Your task to perform on an android device: Open notification settings Image 0: 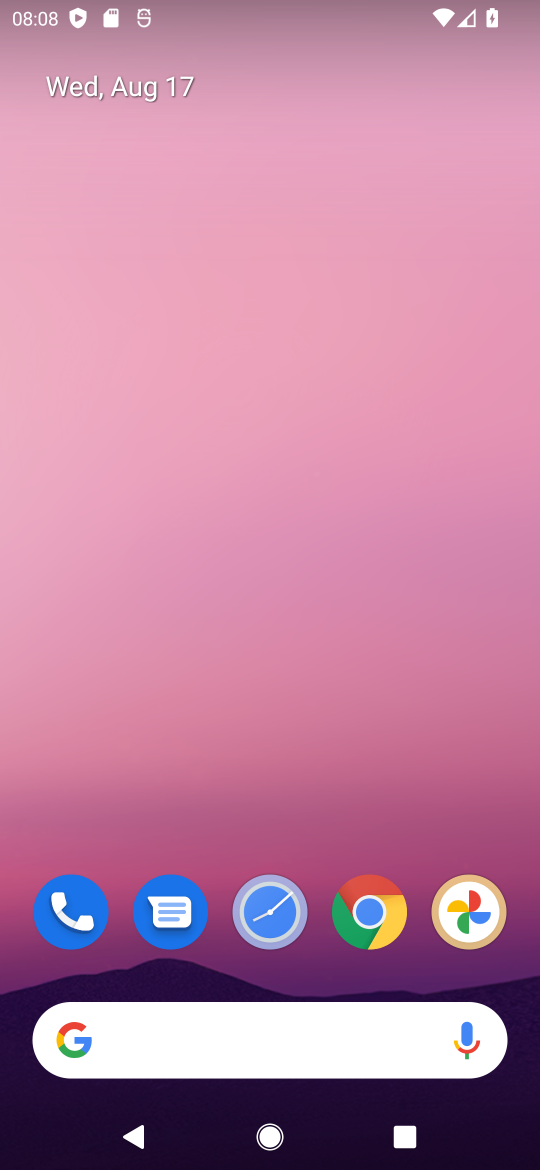
Step 0: drag from (256, 691) to (239, 276)
Your task to perform on an android device: Open notification settings Image 1: 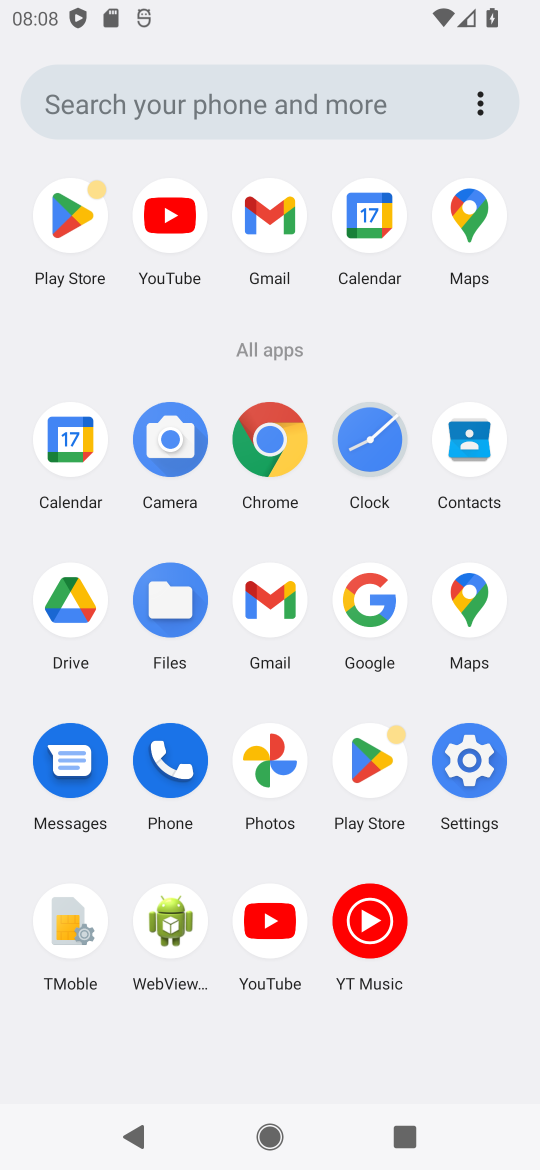
Step 1: click (465, 776)
Your task to perform on an android device: Open notification settings Image 2: 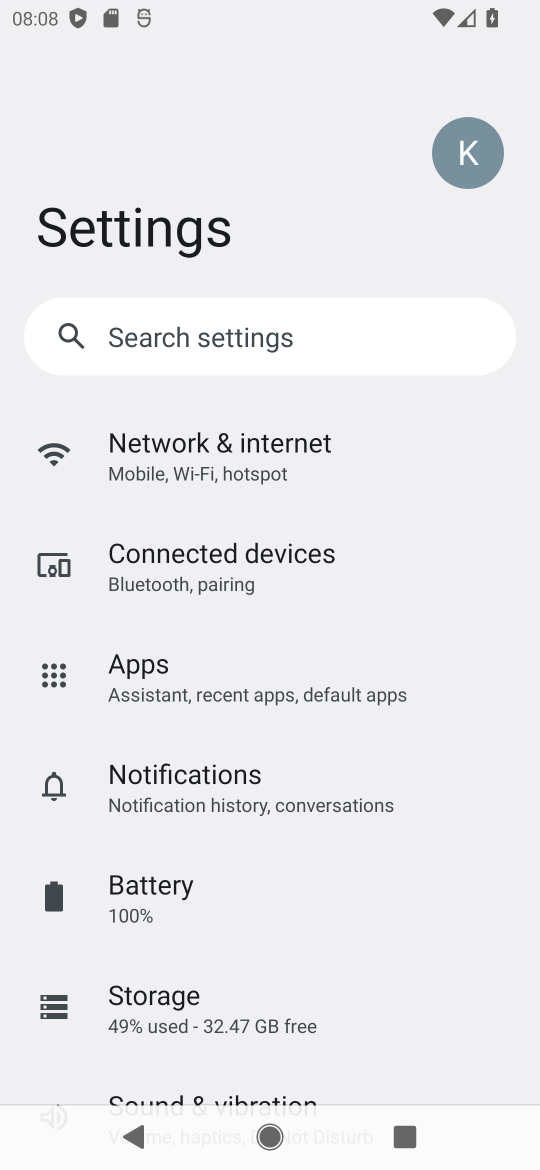
Step 2: click (187, 785)
Your task to perform on an android device: Open notification settings Image 3: 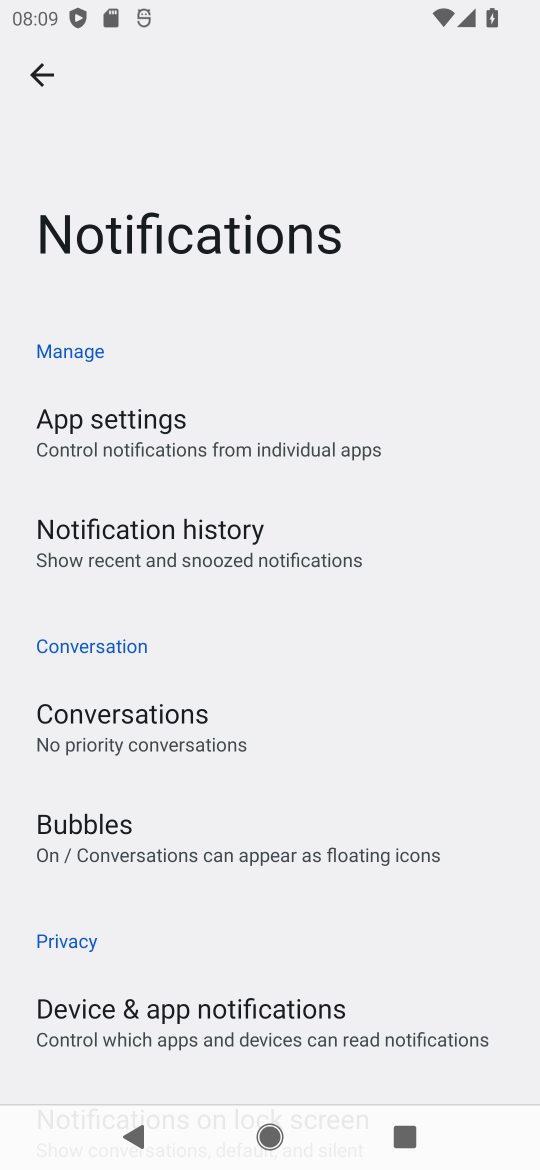
Step 3: task complete